Your task to perform on an android device: Open accessibility settings Image 0: 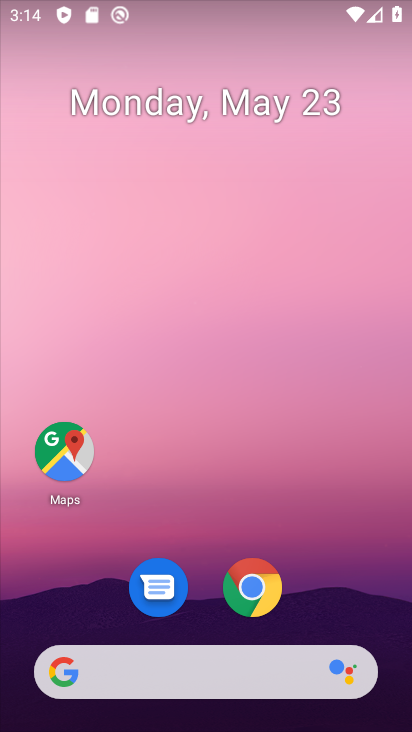
Step 0: press home button
Your task to perform on an android device: Open accessibility settings Image 1: 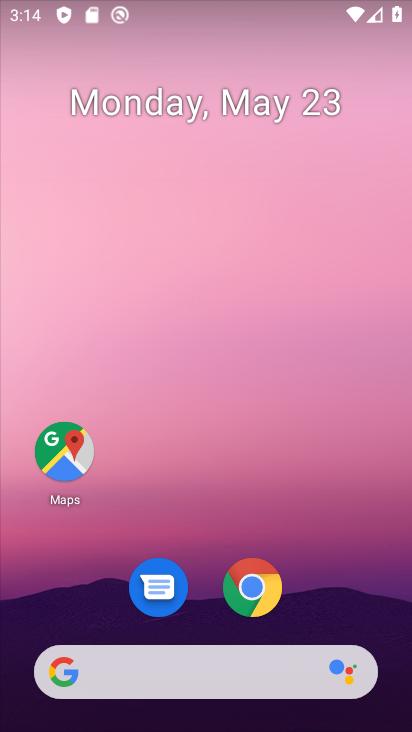
Step 1: drag from (218, 666) to (343, 34)
Your task to perform on an android device: Open accessibility settings Image 2: 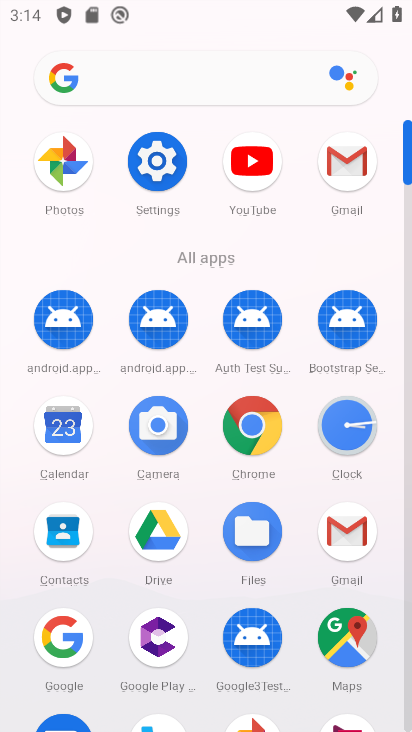
Step 2: click (170, 166)
Your task to perform on an android device: Open accessibility settings Image 3: 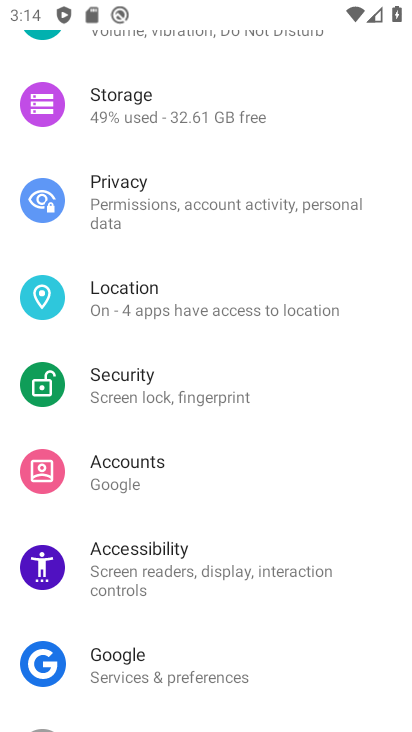
Step 3: click (144, 558)
Your task to perform on an android device: Open accessibility settings Image 4: 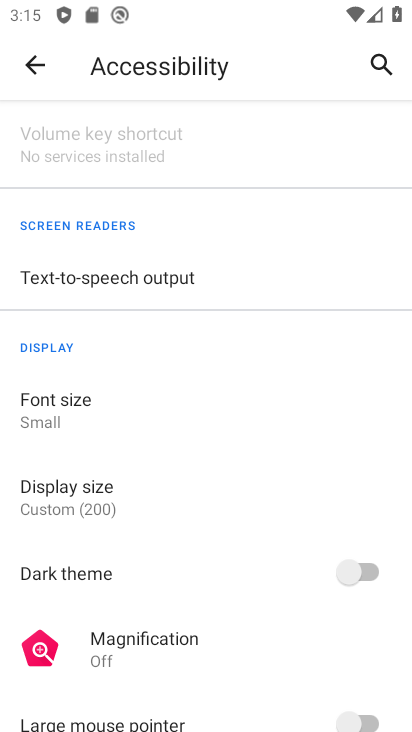
Step 4: task complete